Your task to perform on an android device: Open accessibility settings Image 0: 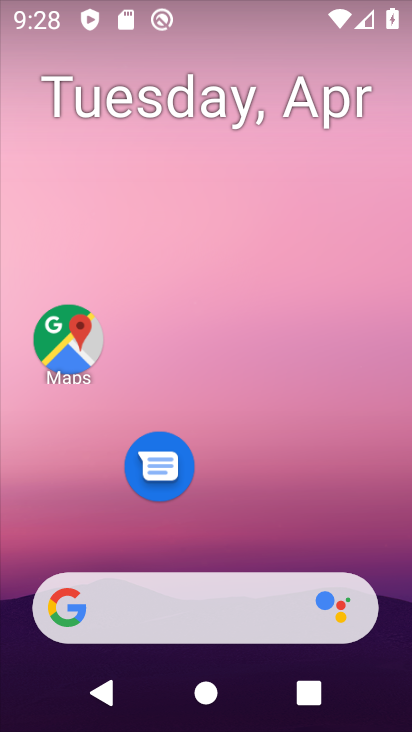
Step 0: drag from (286, 460) to (258, 67)
Your task to perform on an android device: Open accessibility settings Image 1: 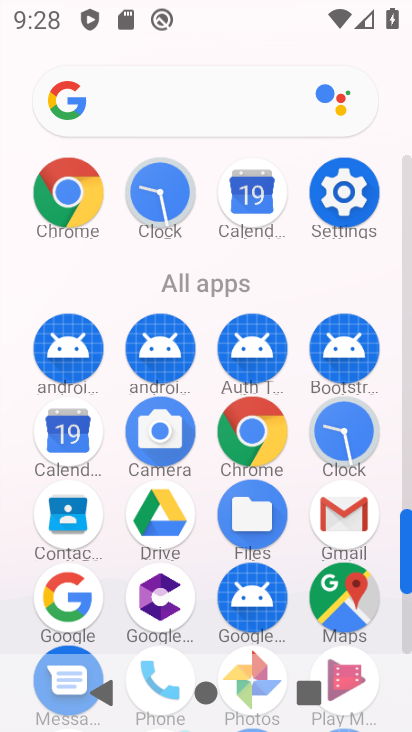
Step 1: click (329, 215)
Your task to perform on an android device: Open accessibility settings Image 2: 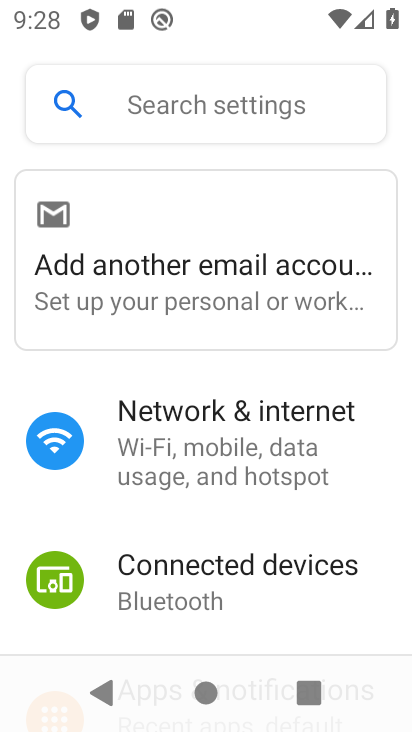
Step 2: drag from (256, 511) to (270, 355)
Your task to perform on an android device: Open accessibility settings Image 3: 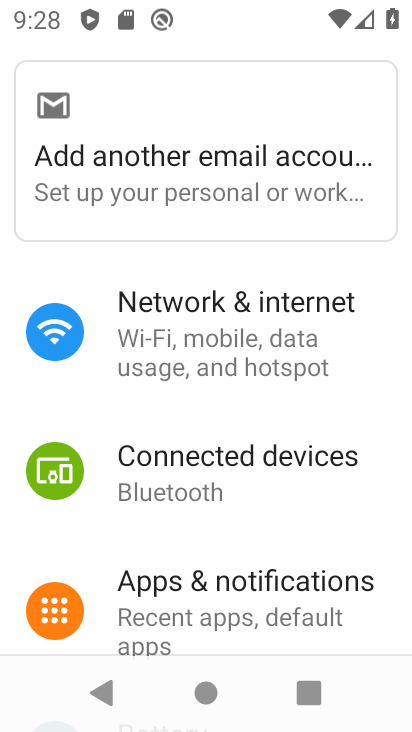
Step 3: drag from (254, 549) to (273, 325)
Your task to perform on an android device: Open accessibility settings Image 4: 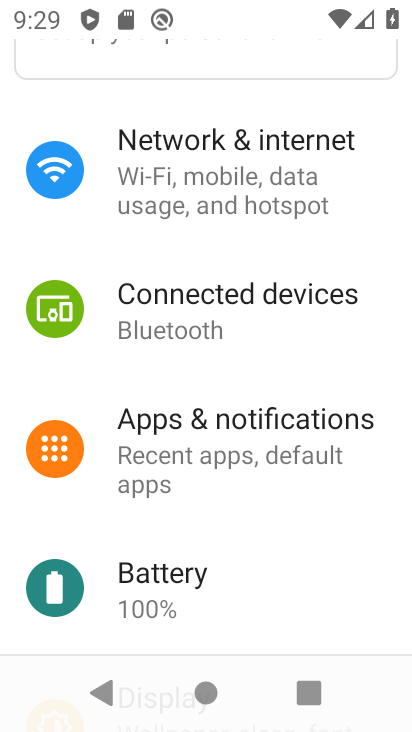
Step 4: drag from (254, 525) to (272, 182)
Your task to perform on an android device: Open accessibility settings Image 5: 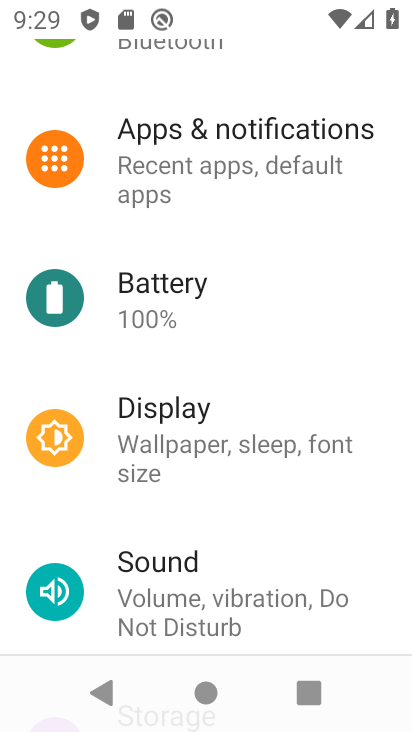
Step 5: drag from (254, 570) to (251, 292)
Your task to perform on an android device: Open accessibility settings Image 6: 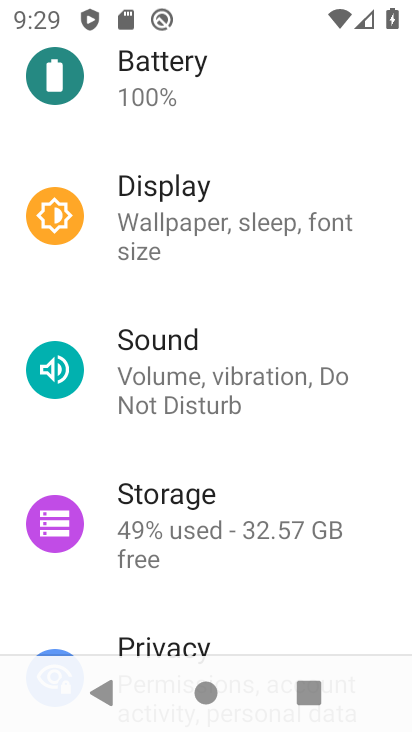
Step 6: drag from (240, 614) to (255, 371)
Your task to perform on an android device: Open accessibility settings Image 7: 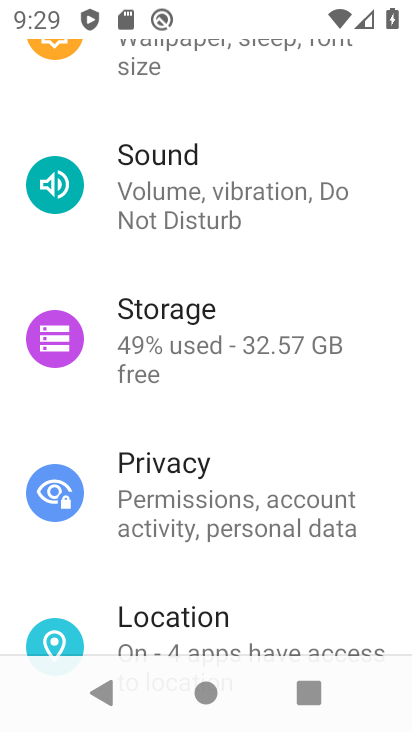
Step 7: drag from (210, 643) to (251, 265)
Your task to perform on an android device: Open accessibility settings Image 8: 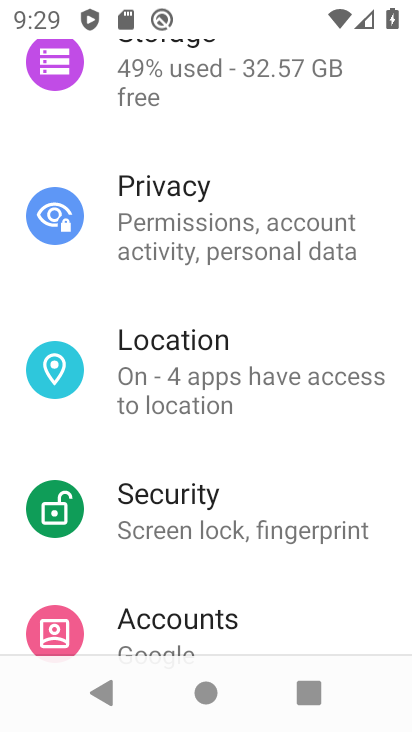
Step 8: drag from (226, 565) to (259, 296)
Your task to perform on an android device: Open accessibility settings Image 9: 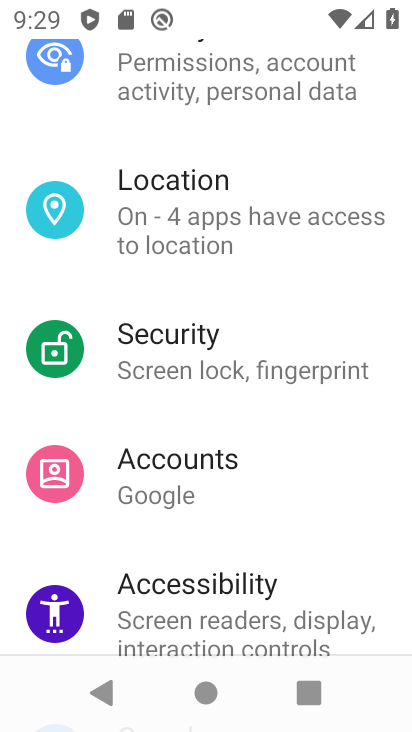
Step 9: drag from (243, 530) to (269, 331)
Your task to perform on an android device: Open accessibility settings Image 10: 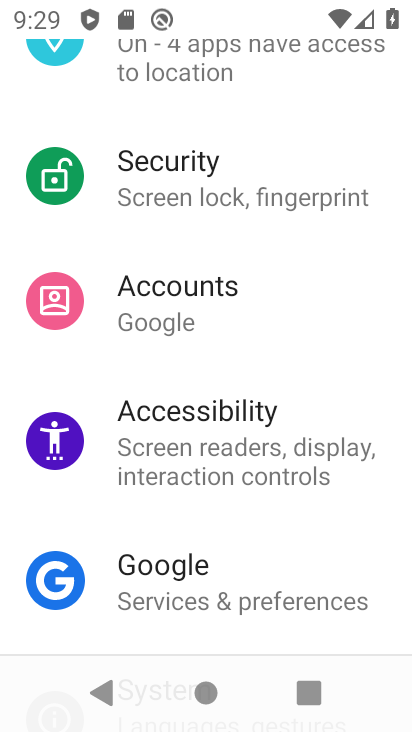
Step 10: click (252, 402)
Your task to perform on an android device: Open accessibility settings Image 11: 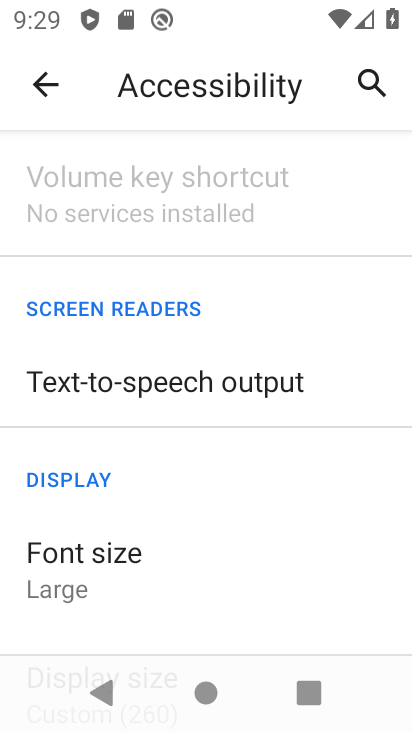
Step 11: task complete